Your task to perform on an android device: Go to settings Image 0: 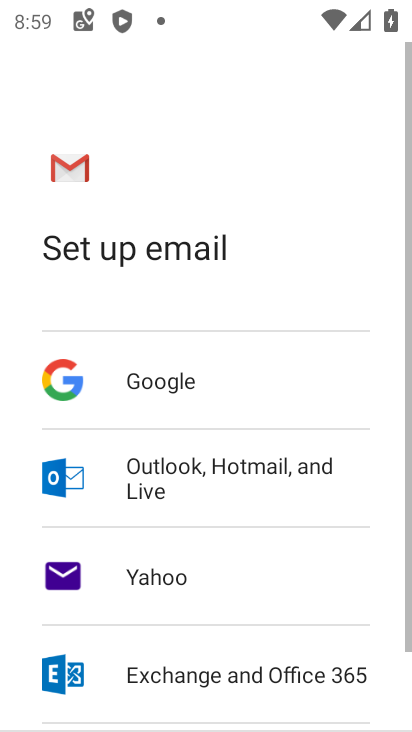
Step 0: press home button
Your task to perform on an android device: Go to settings Image 1: 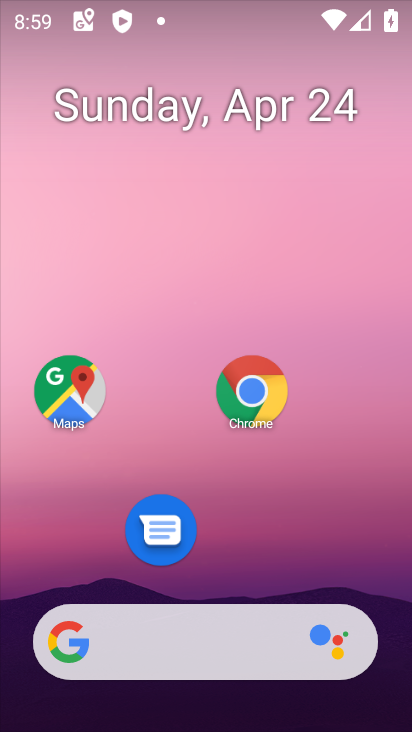
Step 1: drag from (238, 560) to (255, 6)
Your task to perform on an android device: Go to settings Image 2: 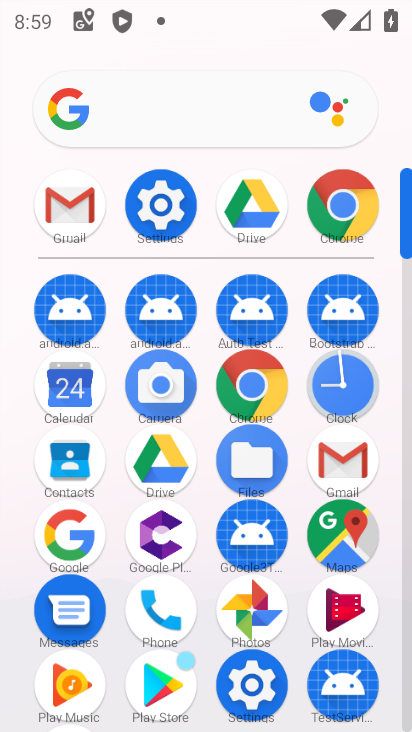
Step 2: click (165, 189)
Your task to perform on an android device: Go to settings Image 3: 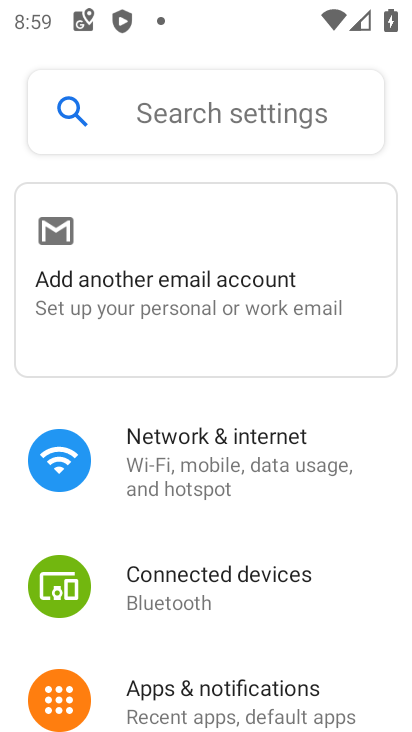
Step 3: task complete